Your task to perform on an android device: change the upload size in google photos Image 0: 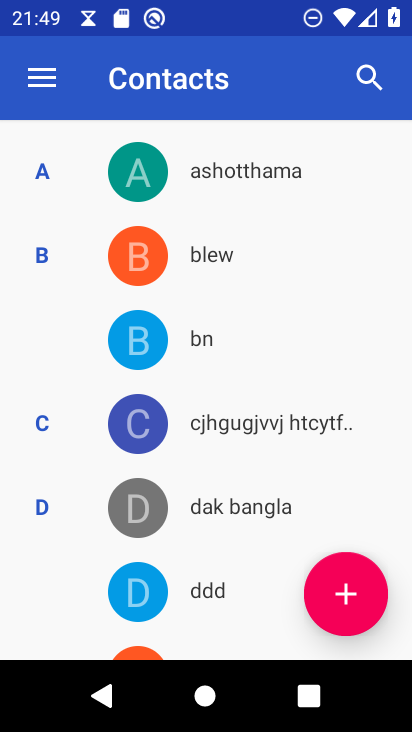
Step 0: press home button
Your task to perform on an android device: change the upload size in google photos Image 1: 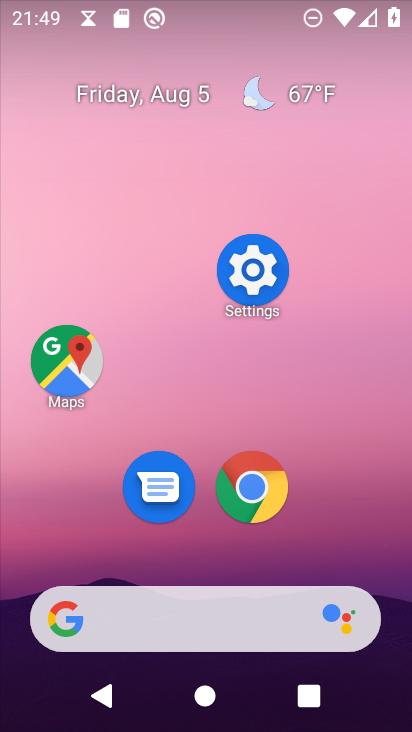
Step 1: drag from (215, 605) to (277, 129)
Your task to perform on an android device: change the upload size in google photos Image 2: 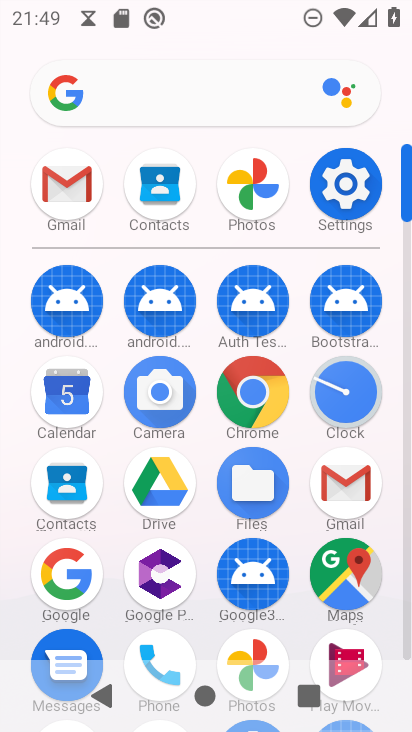
Step 2: click (249, 183)
Your task to perform on an android device: change the upload size in google photos Image 3: 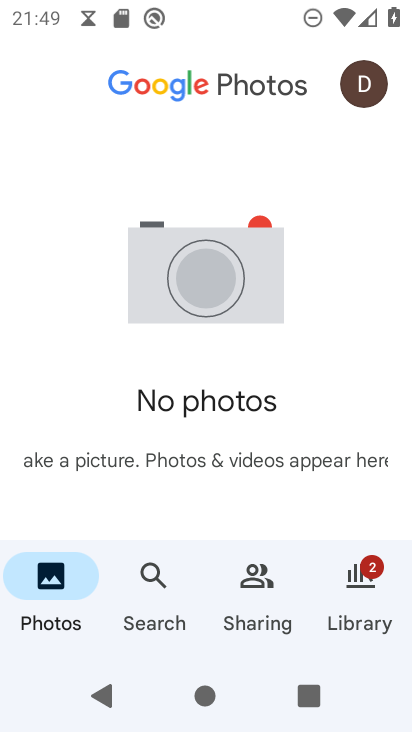
Step 3: click (368, 89)
Your task to perform on an android device: change the upload size in google photos Image 4: 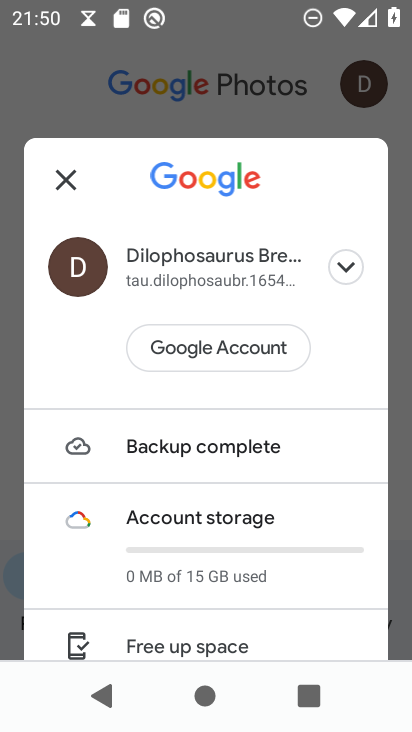
Step 4: drag from (268, 611) to (311, 233)
Your task to perform on an android device: change the upload size in google photos Image 5: 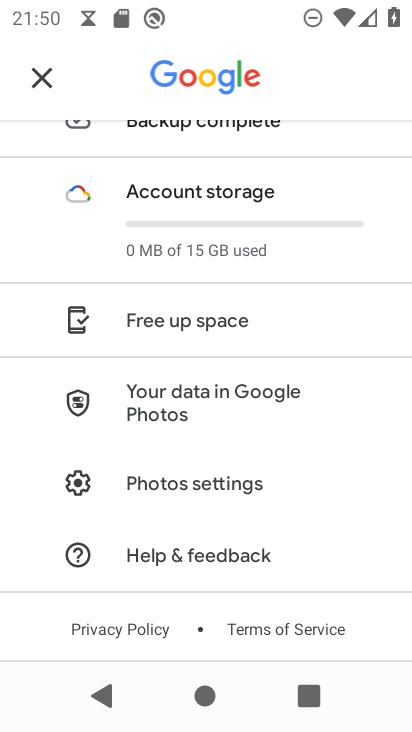
Step 5: click (238, 484)
Your task to perform on an android device: change the upload size in google photos Image 6: 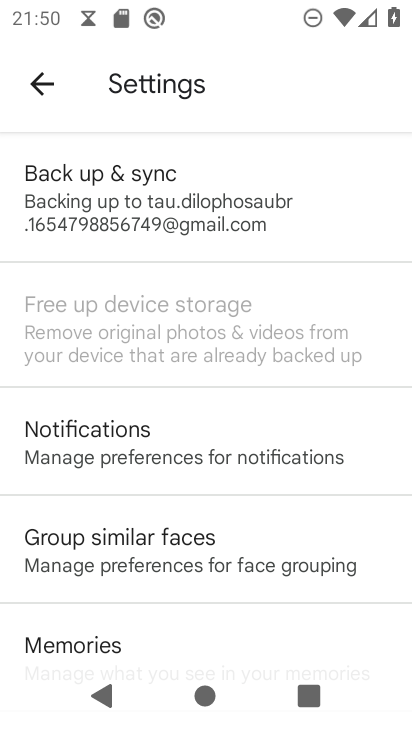
Step 6: click (212, 239)
Your task to perform on an android device: change the upload size in google photos Image 7: 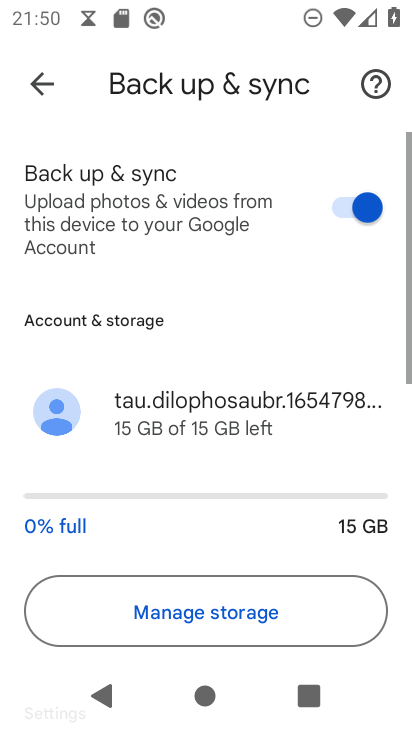
Step 7: drag from (233, 531) to (254, 61)
Your task to perform on an android device: change the upload size in google photos Image 8: 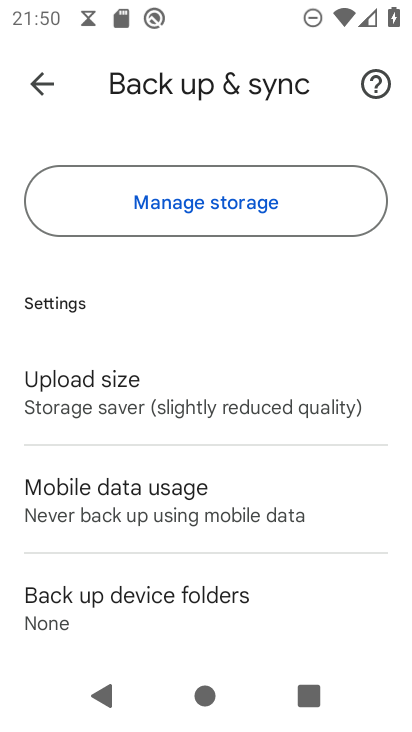
Step 8: click (132, 423)
Your task to perform on an android device: change the upload size in google photos Image 9: 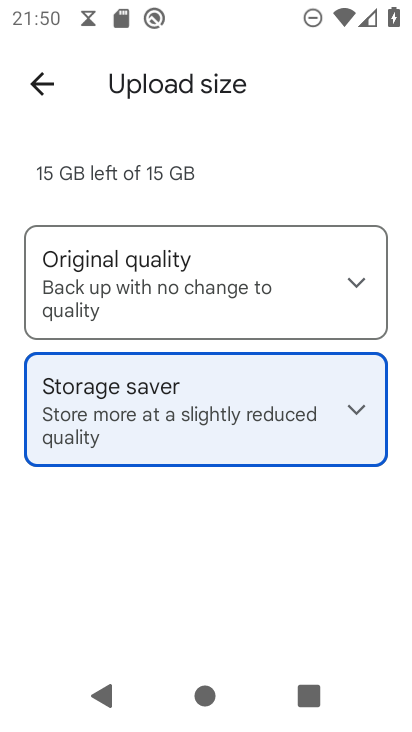
Step 9: click (352, 277)
Your task to perform on an android device: change the upload size in google photos Image 10: 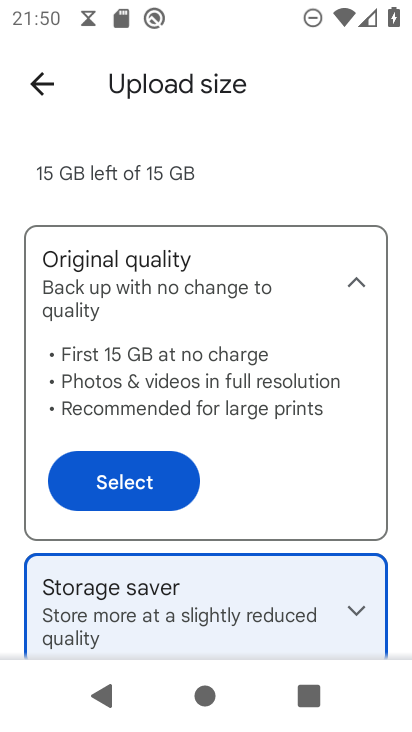
Step 10: click (134, 487)
Your task to perform on an android device: change the upload size in google photos Image 11: 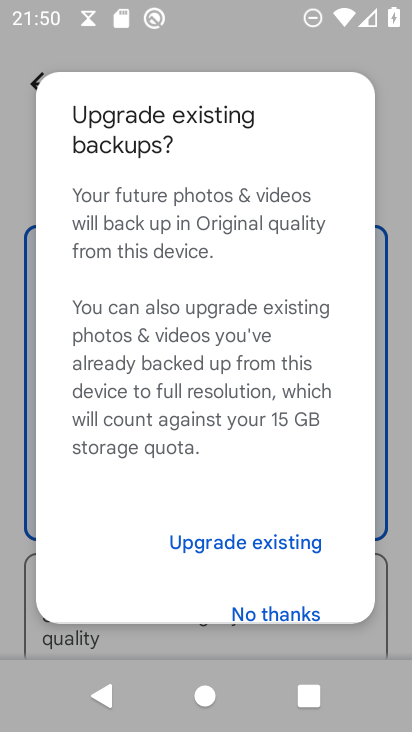
Step 11: click (264, 533)
Your task to perform on an android device: change the upload size in google photos Image 12: 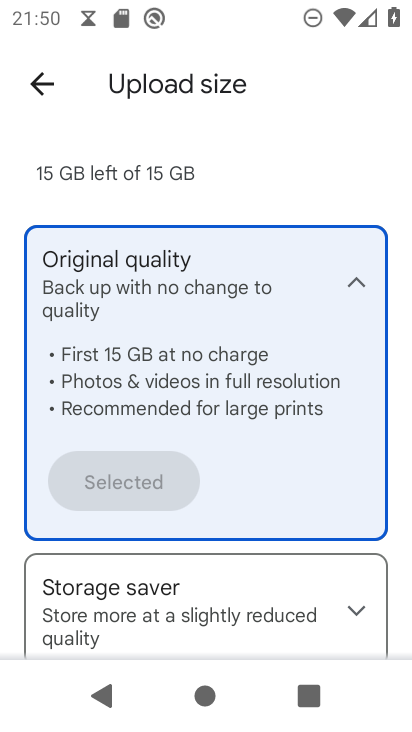
Step 12: task complete